Your task to perform on an android device: turn off location history Image 0: 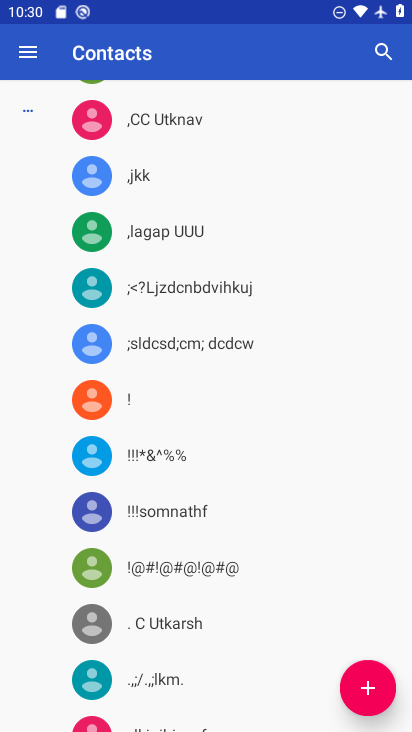
Step 0: press home button
Your task to perform on an android device: turn off location history Image 1: 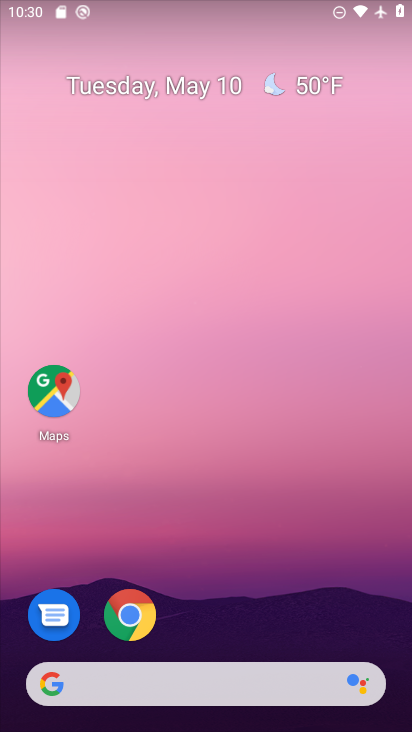
Step 1: click (48, 387)
Your task to perform on an android device: turn off location history Image 2: 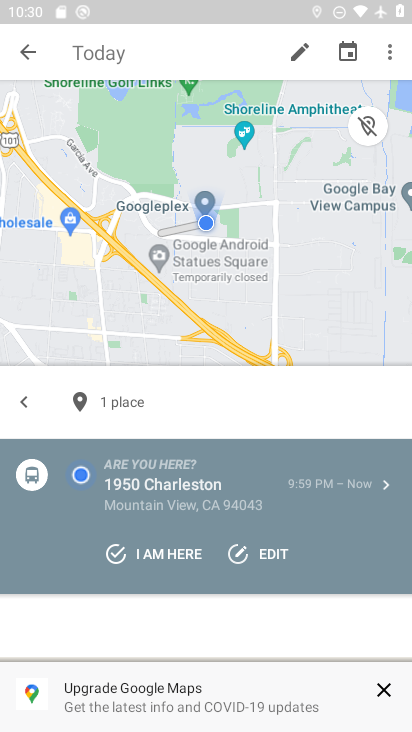
Step 2: press back button
Your task to perform on an android device: turn off location history Image 3: 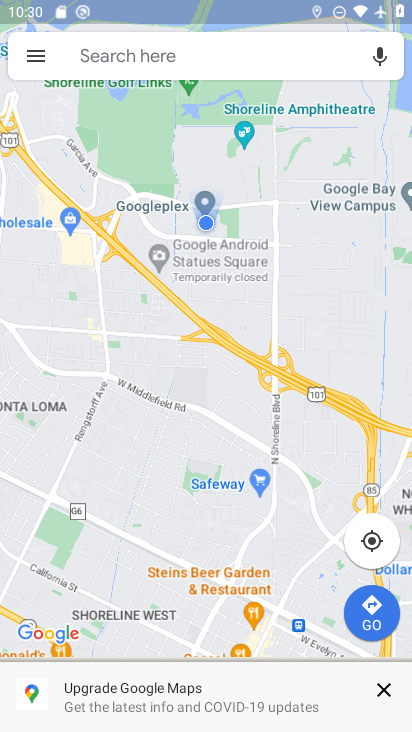
Step 3: click (34, 56)
Your task to perform on an android device: turn off location history Image 4: 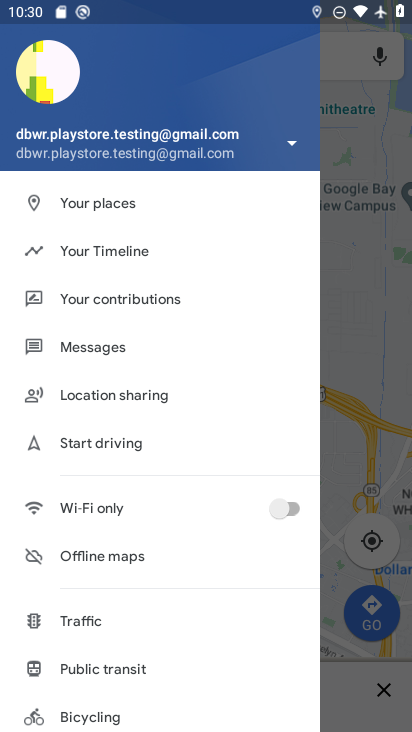
Step 4: drag from (203, 560) to (201, 287)
Your task to perform on an android device: turn off location history Image 5: 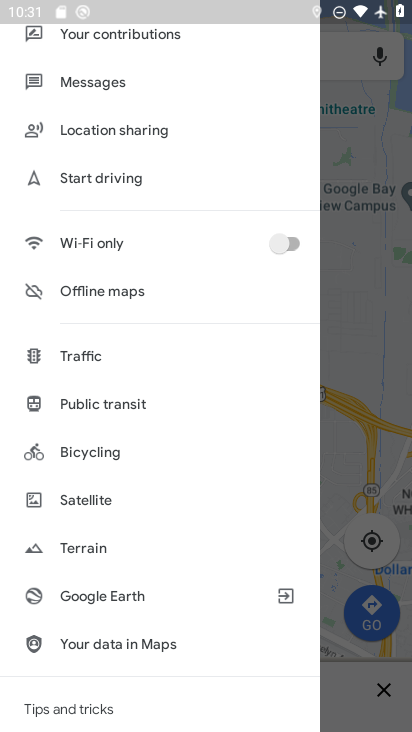
Step 5: drag from (97, 642) to (121, 200)
Your task to perform on an android device: turn off location history Image 6: 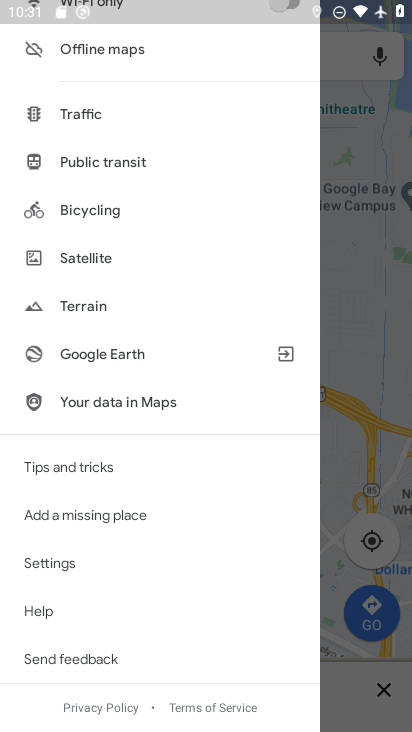
Step 6: click (54, 560)
Your task to perform on an android device: turn off location history Image 7: 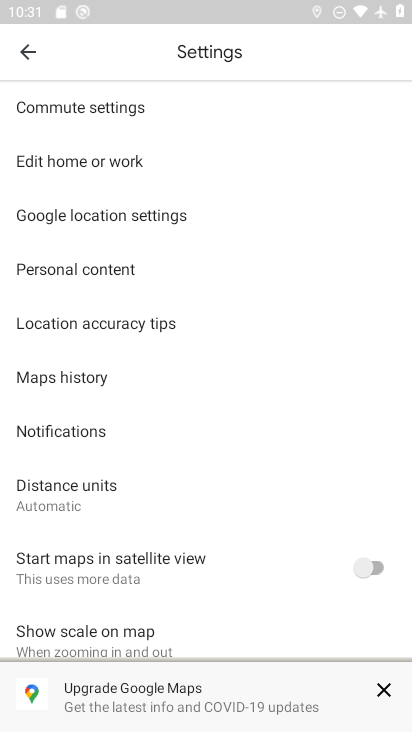
Step 7: click (79, 261)
Your task to perform on an android device: turn off location history Image 8: 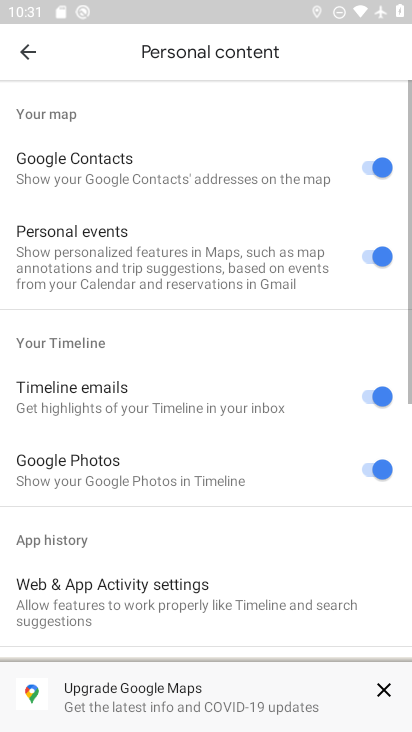
Step 8: task complete